Your task to perform on an android device: find snoozed emails in the gmail app Image 0: 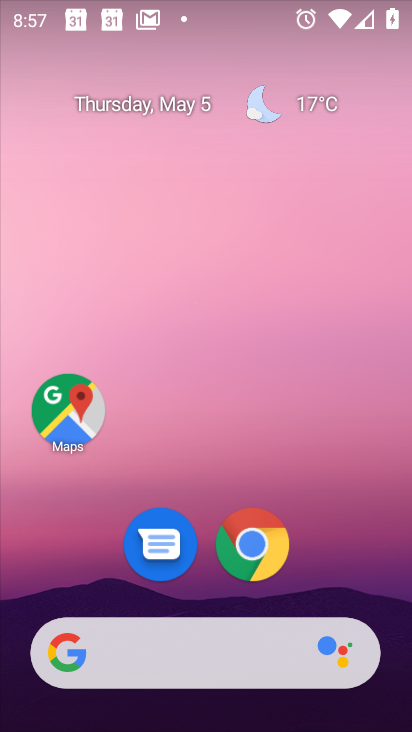
Step 0: click (309, 151)
Your task to perform on an android device: find snoozed emails in the gmail app Image 1: 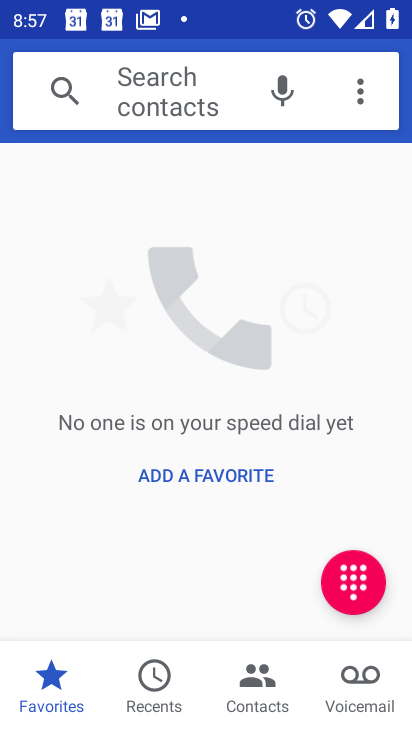
Step 1: press home button
Your task to perform on an android device: find snoozed emails in the gmail app Image 2: 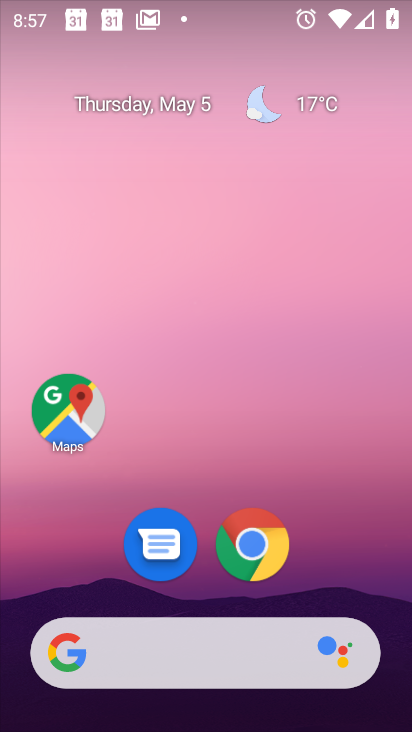
Step 2: drag from (307, 601) to (298, 178)
Your task to perform on an android device: find snoozed emails in the gmail app Image 3: 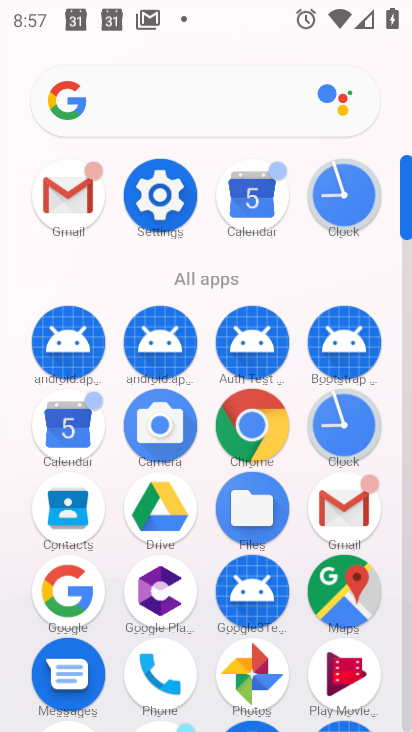
Step 3: click (343, 519)
Your task to perform on an android device: find snoozed emails in the gmail app Image 4: 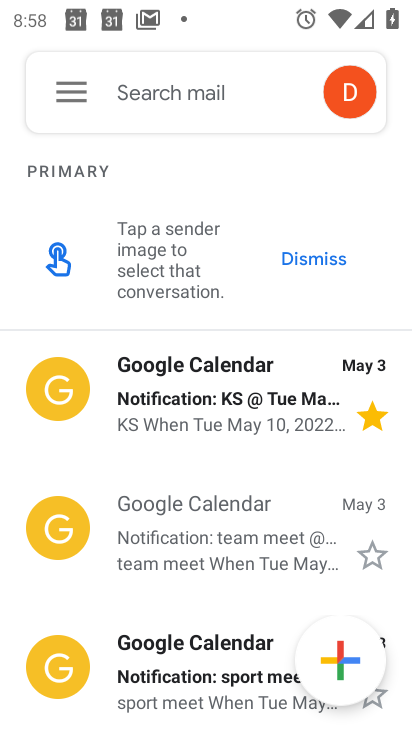
Step 4: click (59, 77)
Your task to perform on an android device: find snoozed emails in the gmail app Image 5: 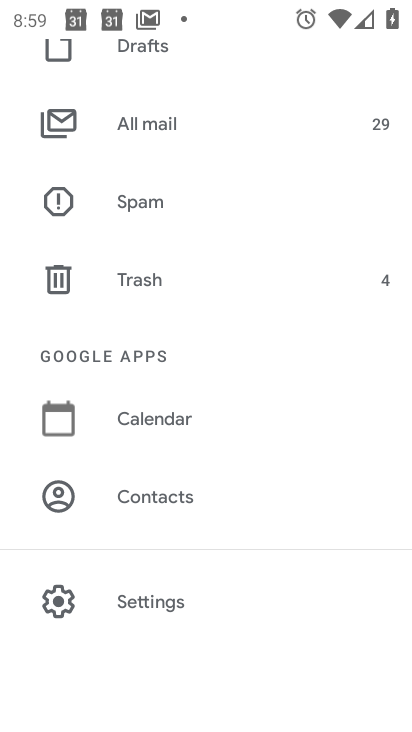
Step 5: drag from (237, 238) to (227, 543)
Your task to perform on an android device: find snoozed emails in the gmail app Image 6: 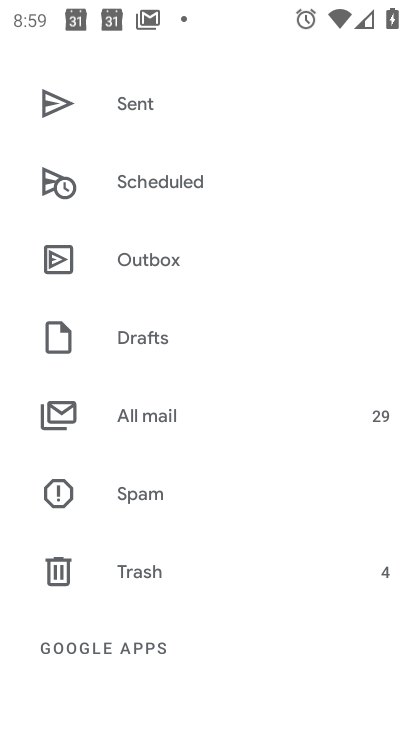
Step 6: drag from (195, 191) to (195, 445)
Your task to perform on an android device: find snoozed emails in the gmail app Image 7: 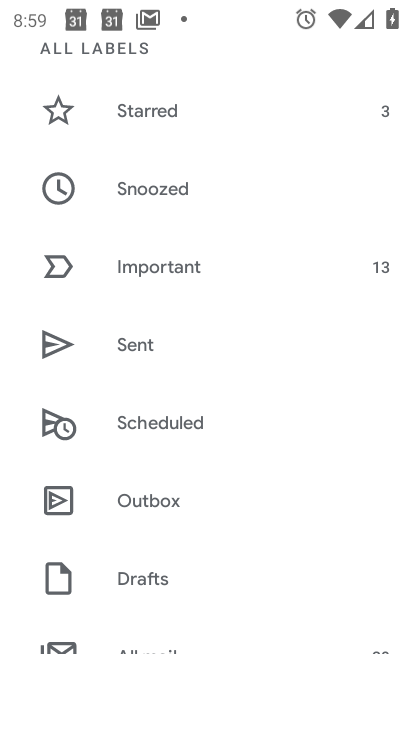
Step 7: click (153, 196)
Your task to perform on an android device: find snoozed emails in the gmail app Image 8: 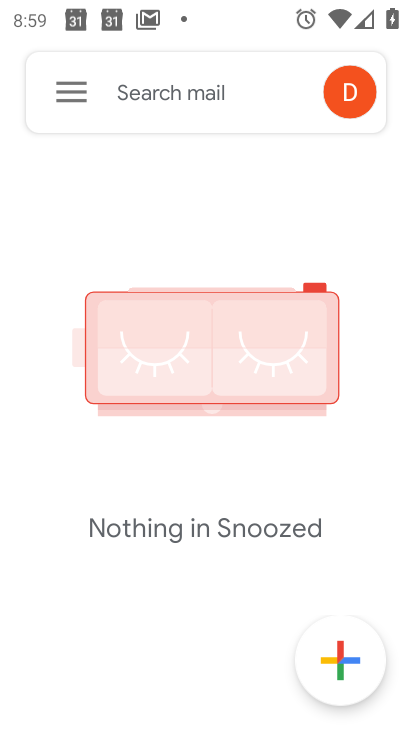
Step 8: task complete